Your task to perform on an android device: Open privacy settings Image 0: 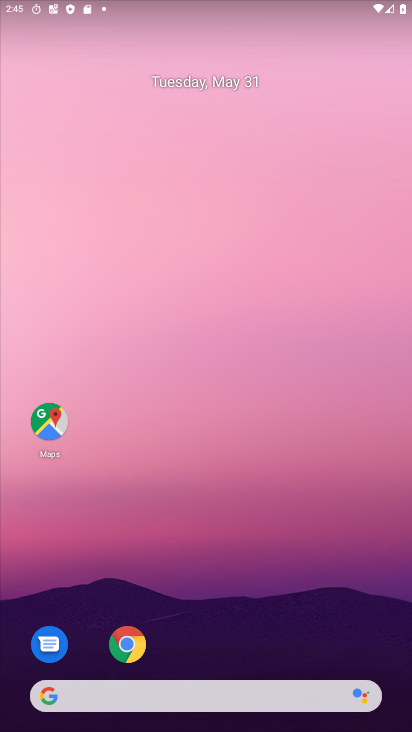
Step 0: drag from (386, 698) to (356, 354)
Your task to perform on an android device: Open privacy settings Image 1: 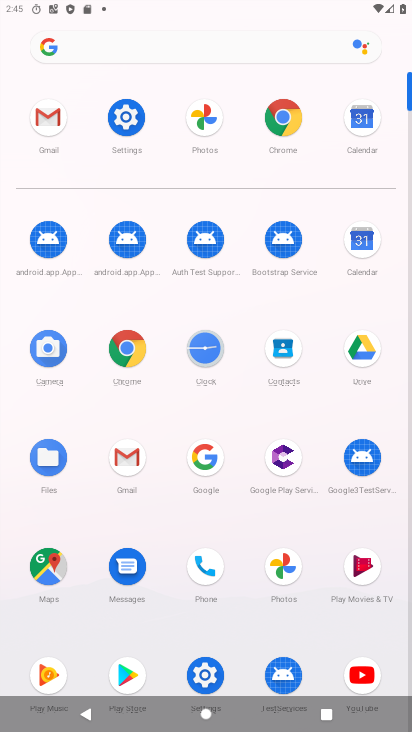
Step 1: click (275, 113)
Your task to perform on an android device: Open privacy settings Image 2: 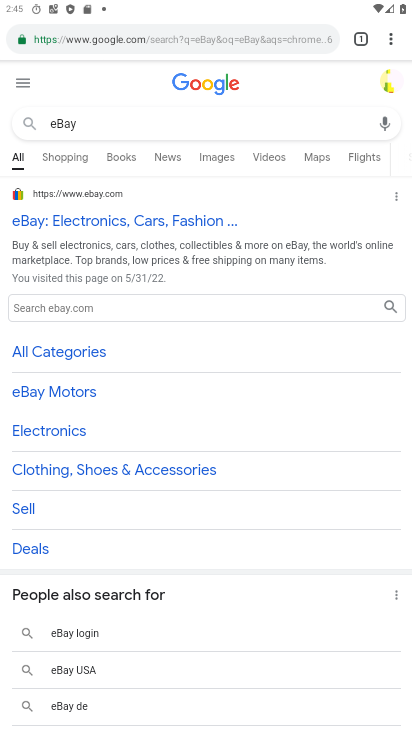
Step 2: click (391, 32)
Your task to perform on an android device: Open privacy settings Image 3: 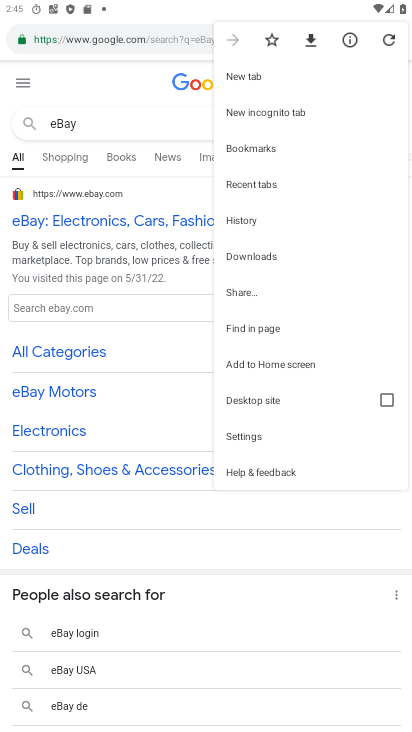
Step 3: click (240, 431)
Your task to perform on an android device: Open privacy settings Image 4: 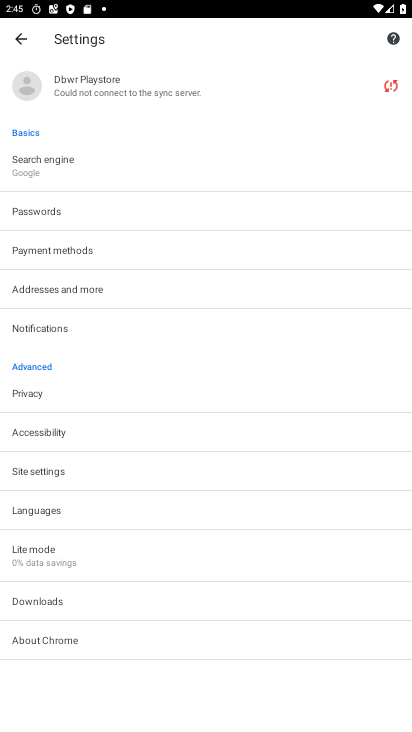
Step 4: click (37, 393)
Your task to perform on an android device: Open privacy settings Image 5: 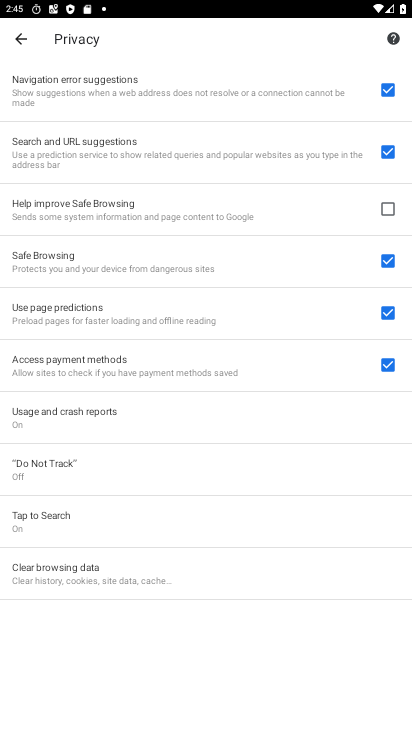
Step 5: task complete